Your task to perform on an android device: open a bookmark in the chrome app Image 0: 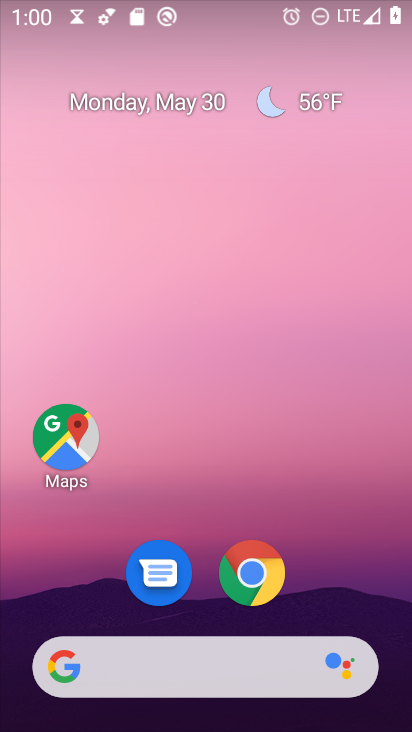
Step 0: drag from (329, 656) to (325, 3)
Your task to perform on an android device: open a bookmark in the chrome app Image 1: 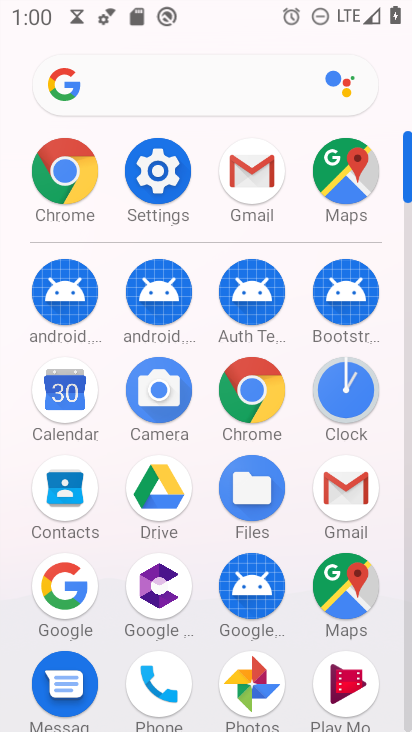
Step 1: click (265, 367)
Your task to perform on an android device: open a bookmark in the chrome app Image 2: 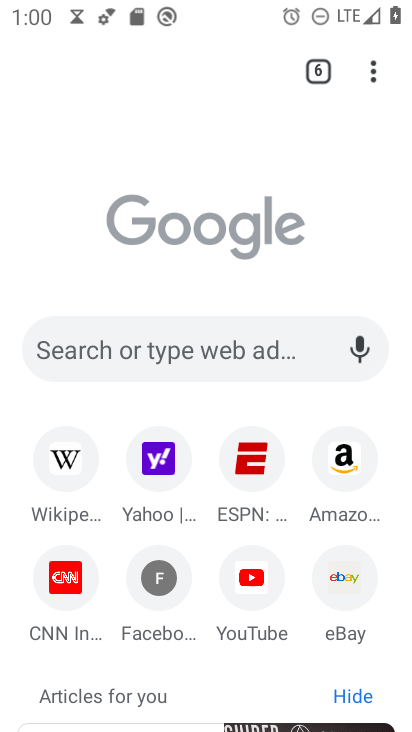
Step 2: task complete